Your task to perform on an android device: Add "logitech g502" to the cart on amazon.com, then select checkout. Image 0: 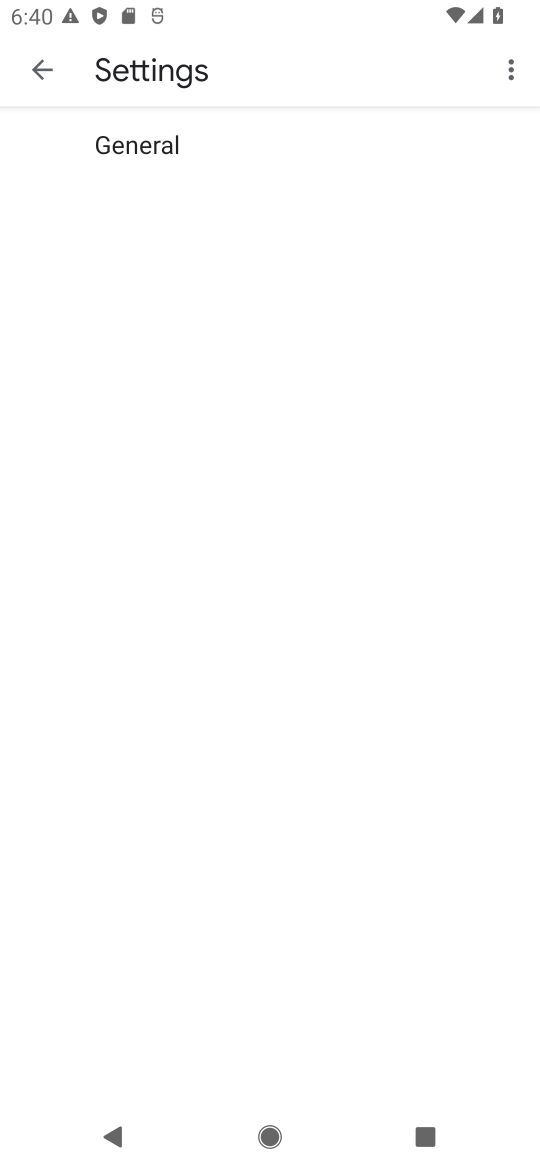
Step 0: press home button
Your task to perform on an android device: Add "logitech g502" to the cart on amazon.com, then select checkout. Image 1: 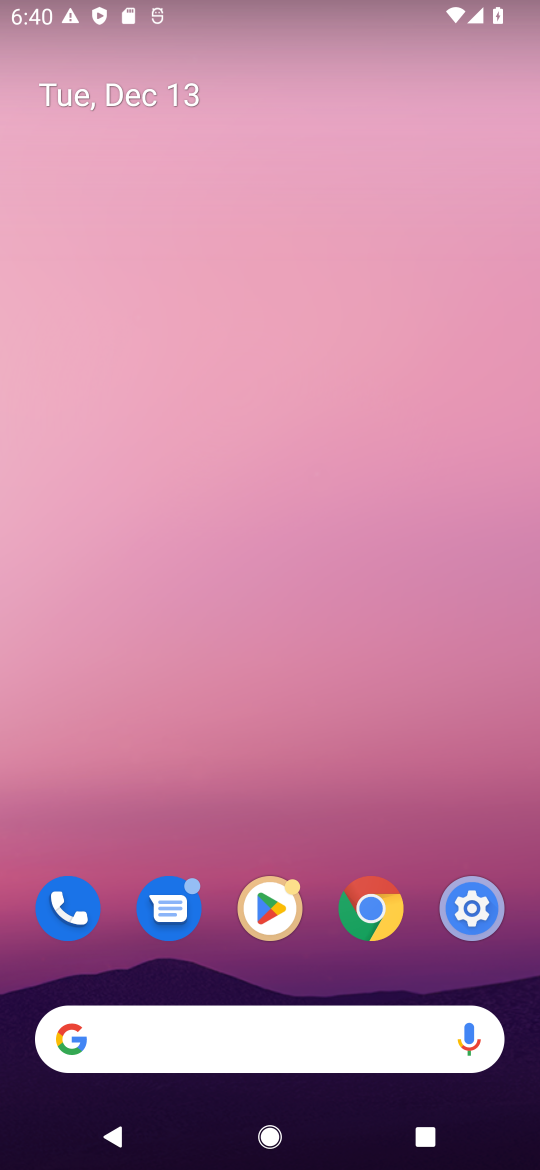
Step 1: click (102, 1025)
Your task to perform on an android device: Add "logitech g502" to the cart on amazon.com, then select checkout. Image 2: 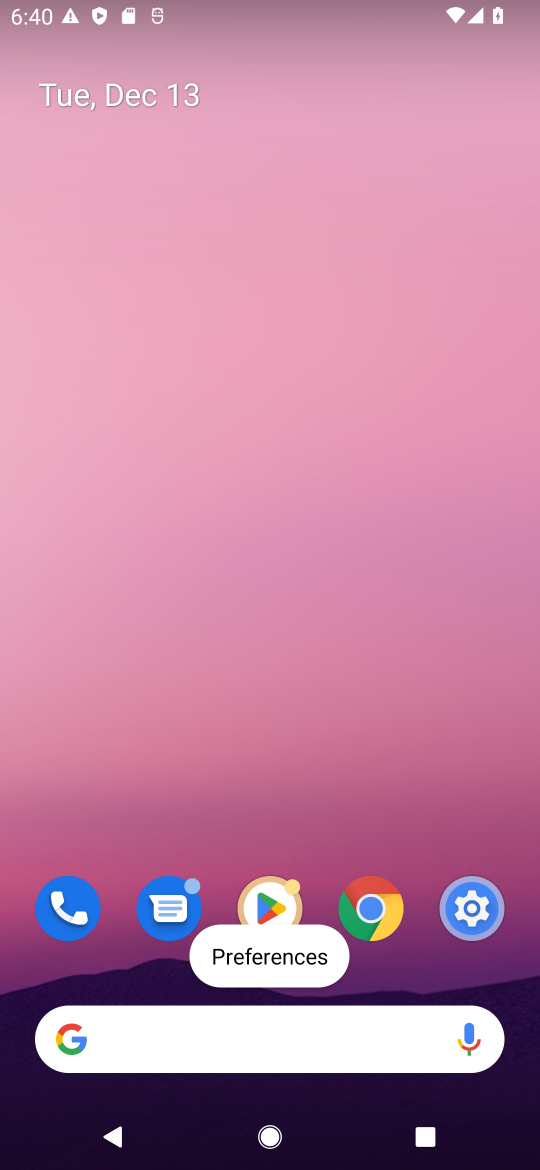
Step 2: click (103, 1047)
Your task to perform on an android device: Add "logitech g502" to the cart on amazon.com, then select checkout. Image 3: 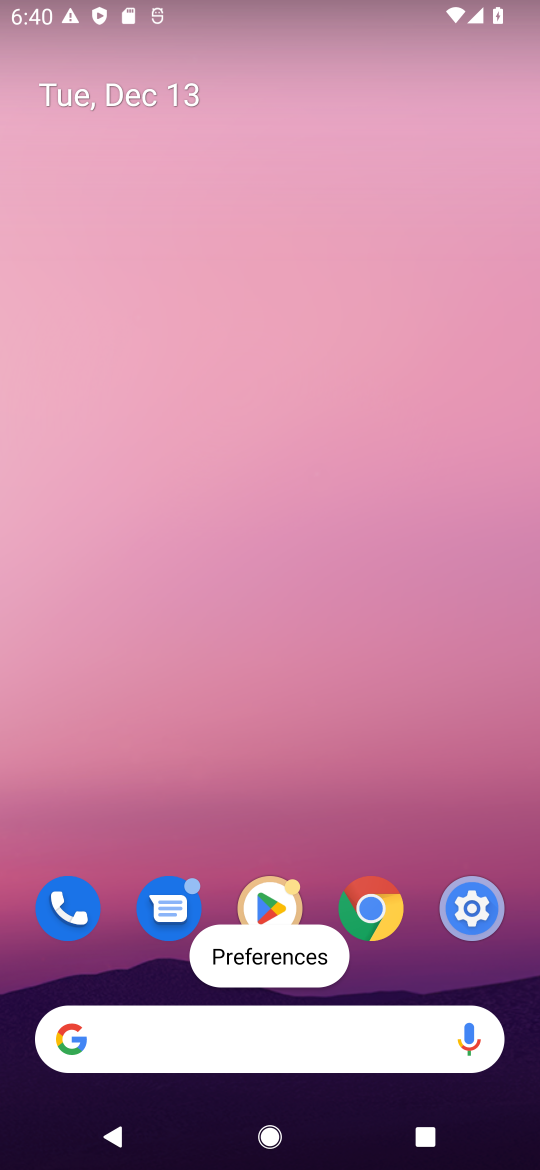
Step 3: click (109, 1036)
Your task to perform on an android device: Add "logitech g502" to the cart on amazon.com, then select checkout. Image 4: 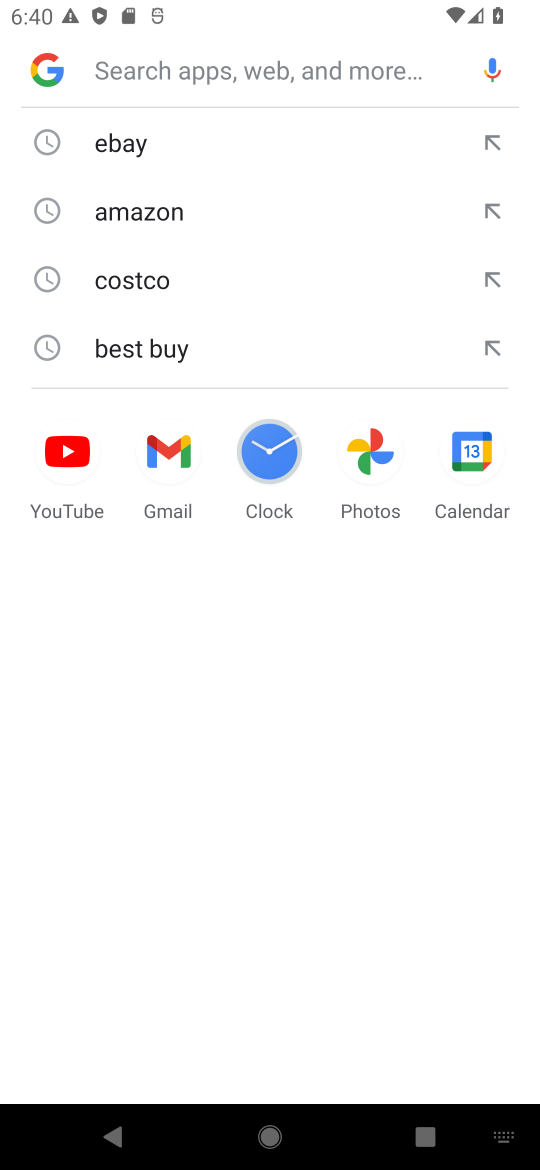
Step 4: type "amazon.com"
Your task to perform on an android device: Add "logitech g502" to the cart on amazon.com, then select checkout. Image 5: 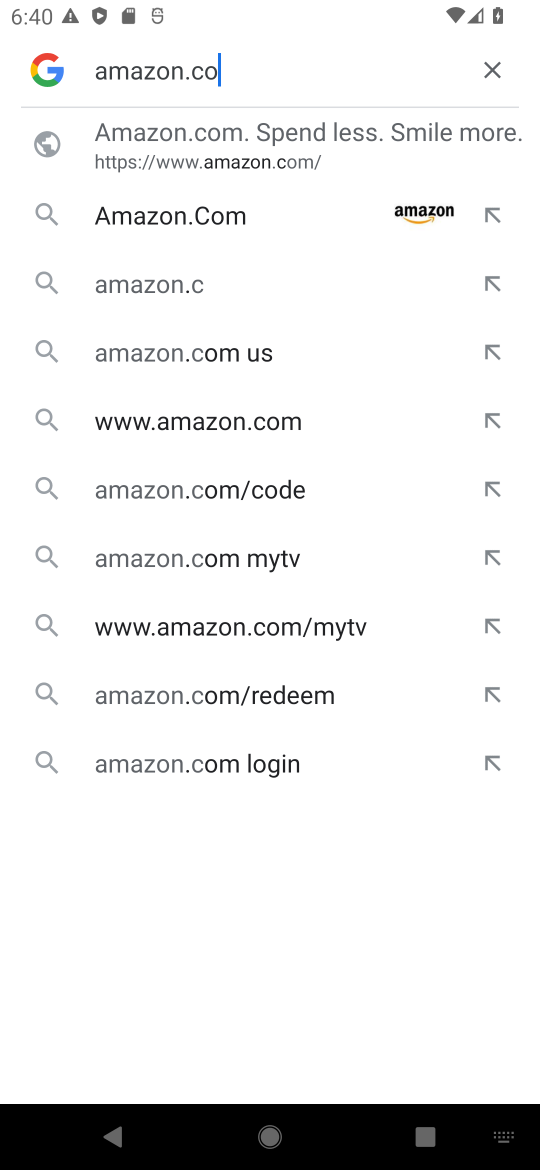
Step 5: press enter
Your task to perform on an android device: Add "logitech g502" to the cart on amazon.com, then select checkout. Image 6: 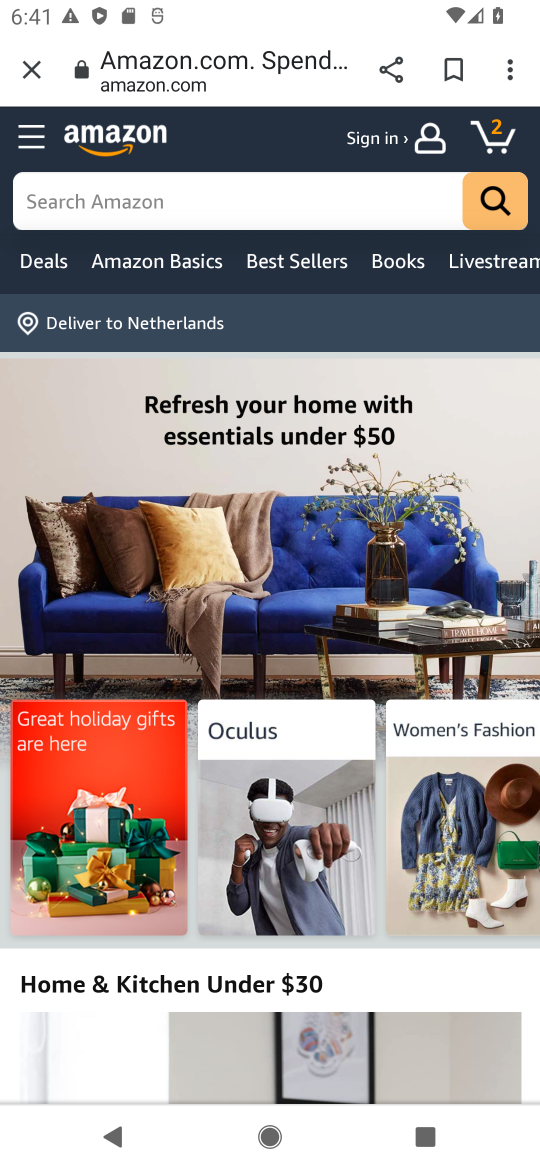
Step 6: click (62, 196)
Your task to perform on an android device: Add "logitech g502" to the cart on amazon.com, then select checkout. Image 7: 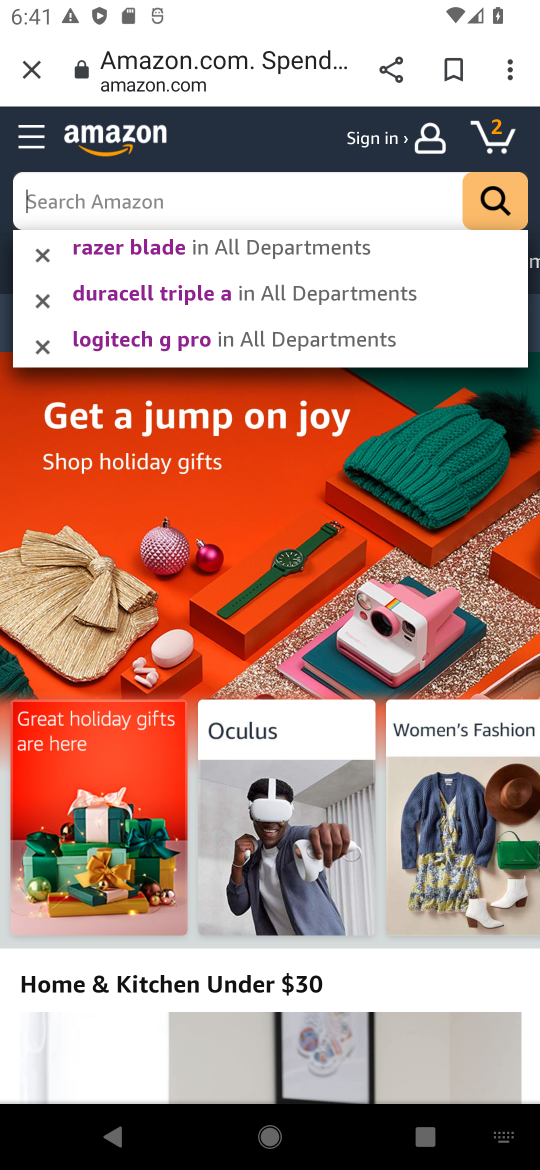
Step 7: press enter
Your task to perform on an android device: Add "logitech g502" to the cart on amazon.com, then select checkout. Image 8: 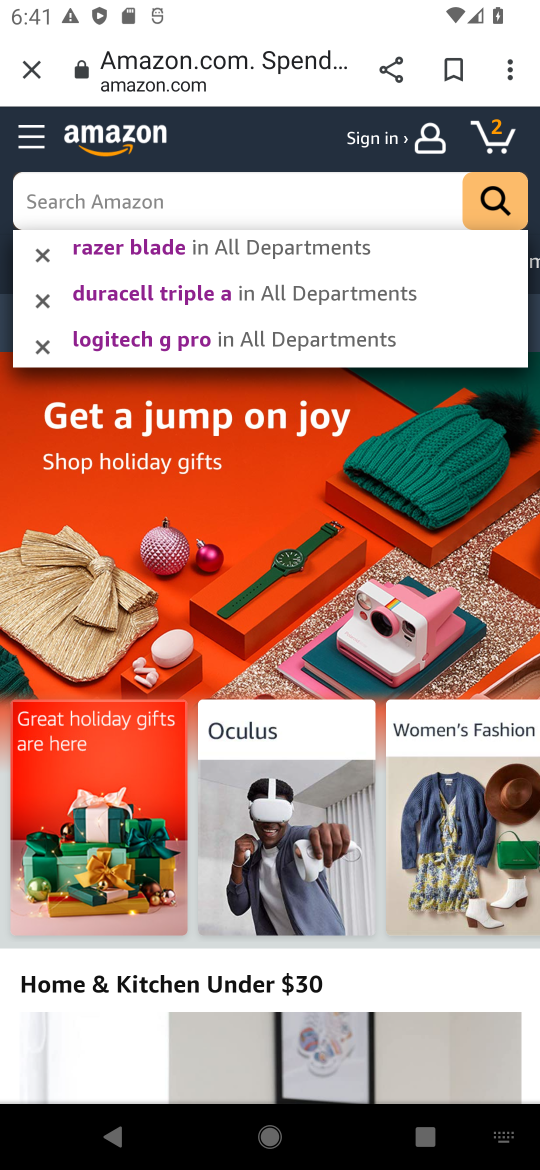
Step 8: type "logitech g502"
Your task to perform on an android device: Add "logitech g502" to the cart on amazon.com, then select checkout. Image 9: 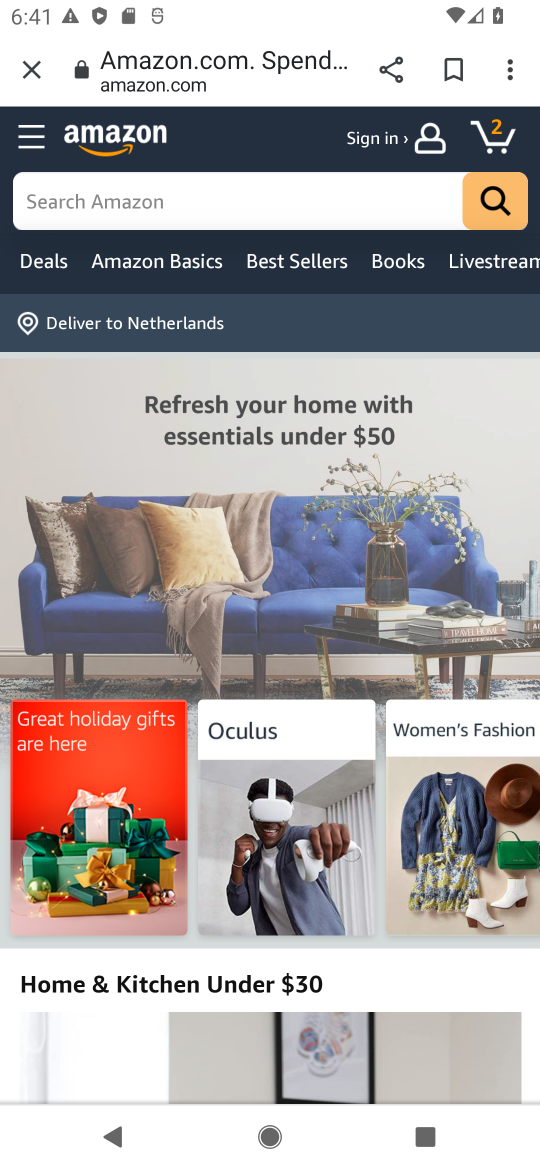
Step 9: click (155, 192)
Your task to perform on an android device: Add "logitech g502" to the cart on amazon.com, then select checkout. Image 10: 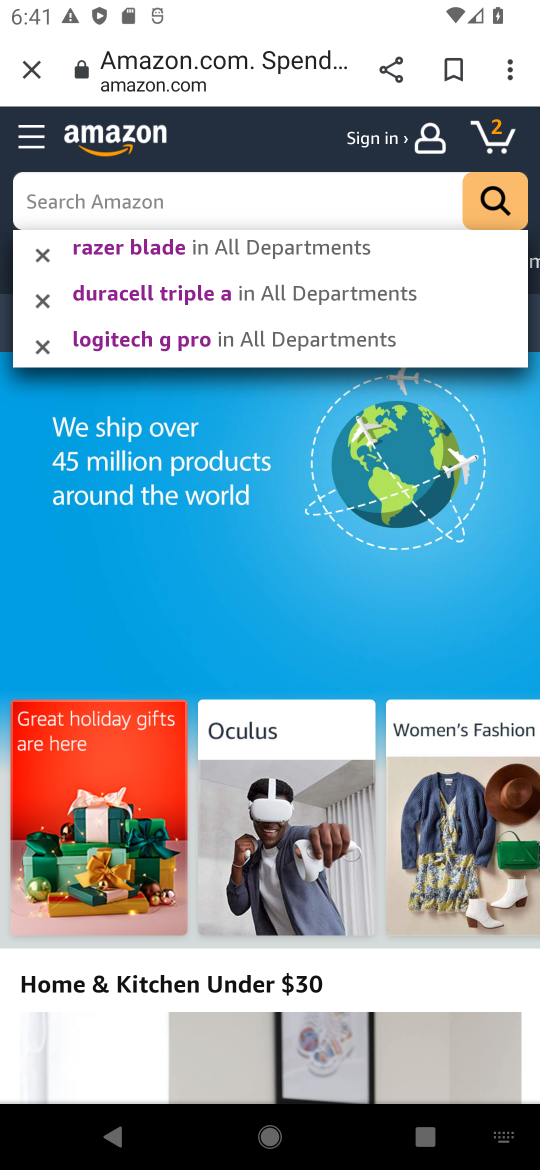
Step 10: type "logitech g502"
Your task to perform on an android device: Add "logitech g502" to the cart on amazon.com, then select checkout. Image 11: 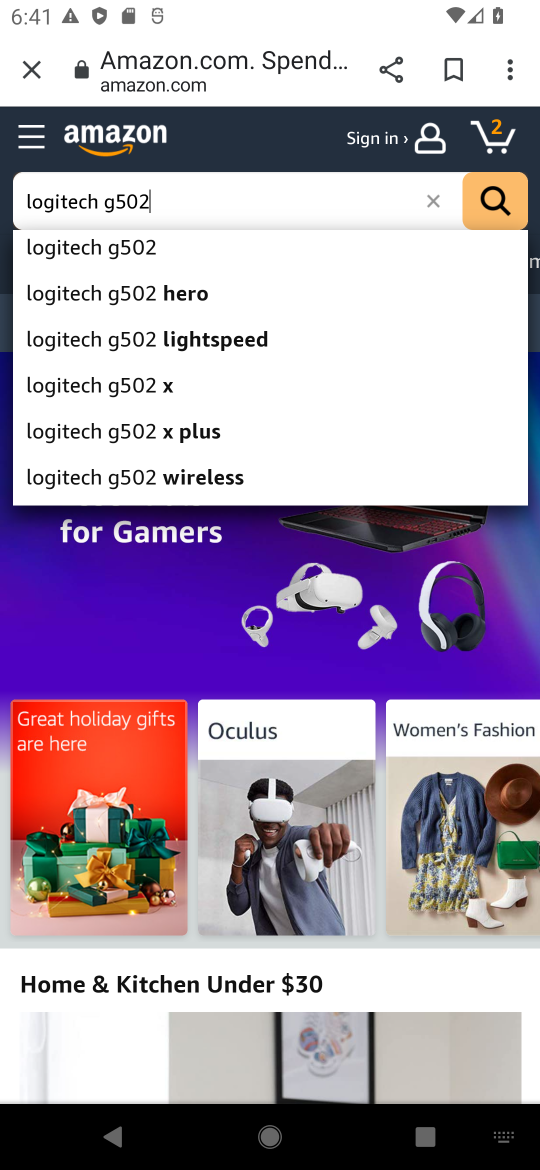
Step 11: click (495, 194)
Your task to perform on an android device: Add "logitech g502" to the cart on amazon.com, then select checkout. Image 12: 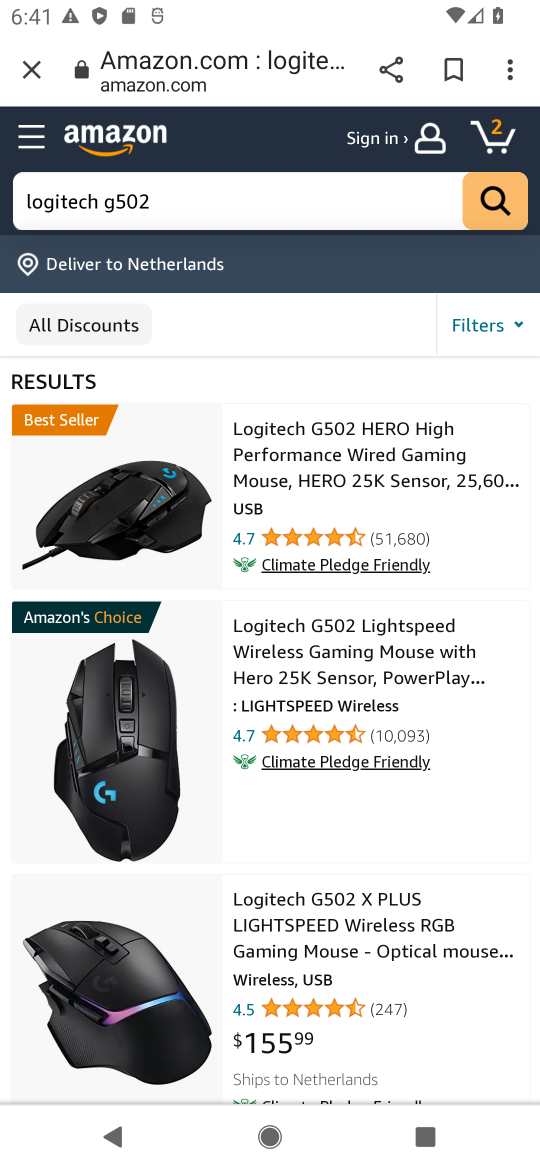
Step 12: click (298, 452)
Your task to perform on an android device: Add "logitech g502" to the cart on amazon.com, then select checkout. Image 13: 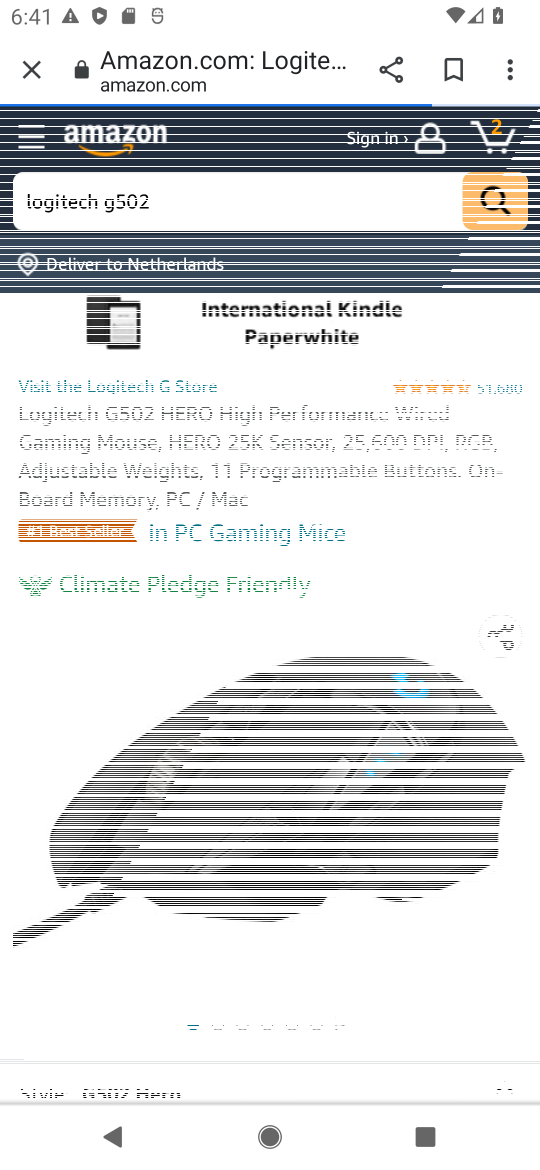
Step 13: task complete